Your task to perform on an android device: Go to internet settings Image 0: 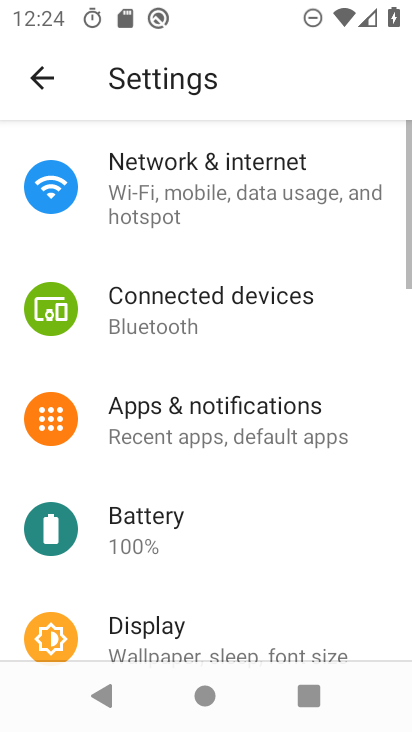
Step 0: click (237, 201)
Your task to perform on an android device: Go to internet settings Image 1: 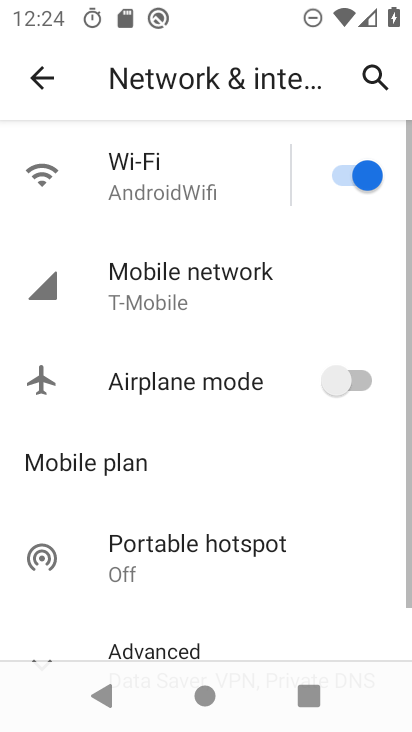
Step 1: click (161, 279)
Your task to perform on an android device: Go to internet settings Image 2: 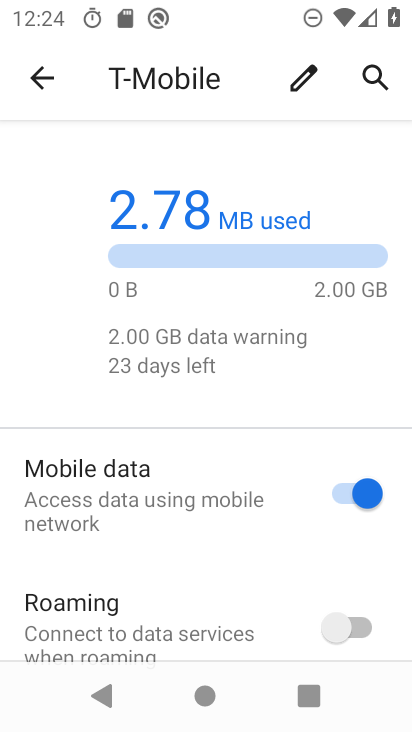
Step 2: click (129, 278)
Your task to perform on an android device: Go to internet settings Image 3: 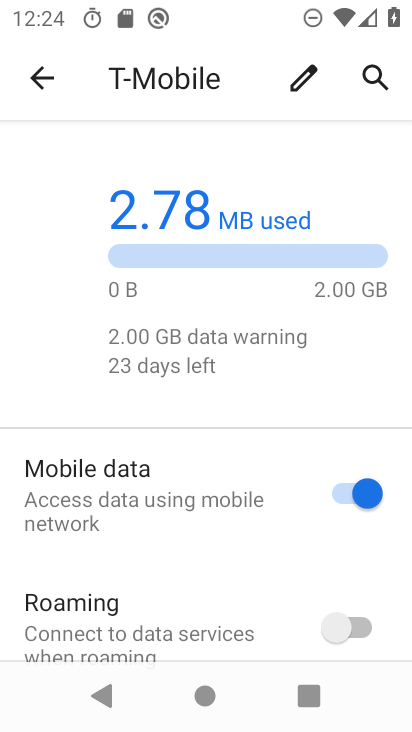
Step 3: drag from (204, 572) to (189, 256)
Your task to perform on an android device: Go to internet settings Image 4: 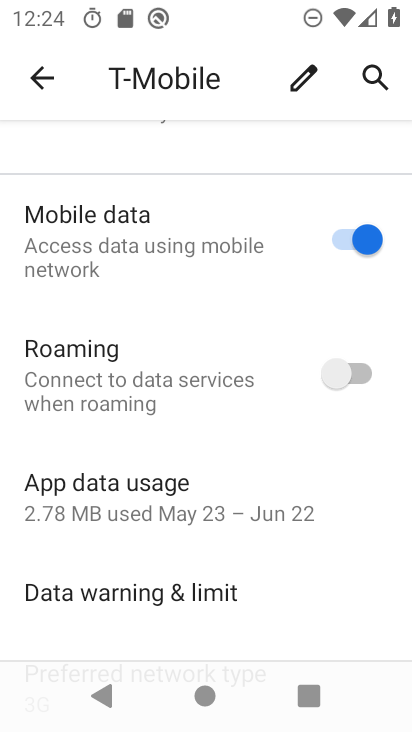
Step 4: click (176, 320)
Your task to perform on an android device: Go to internet settings Image 5: 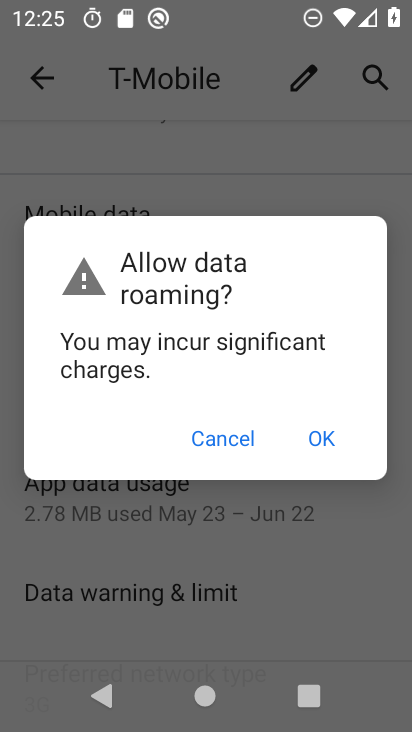
Step 5: click (206, 445)
Your task to perform on an android device: Go to internet settings Image 6: 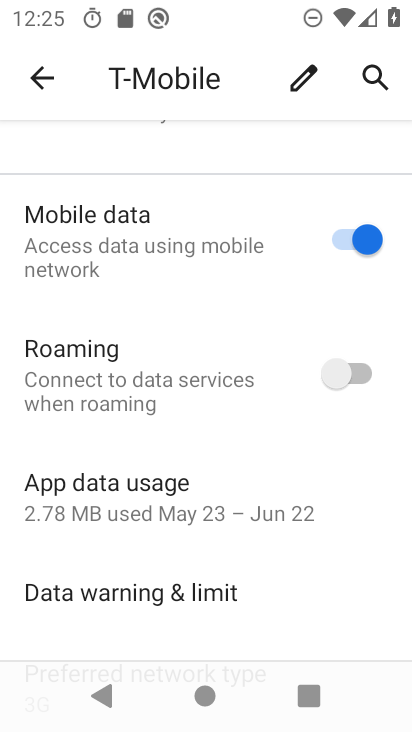
Step 6: drag from (193, 625) to (225, 290)
Your task to perform on an android device: Go to internet settings Image 7: 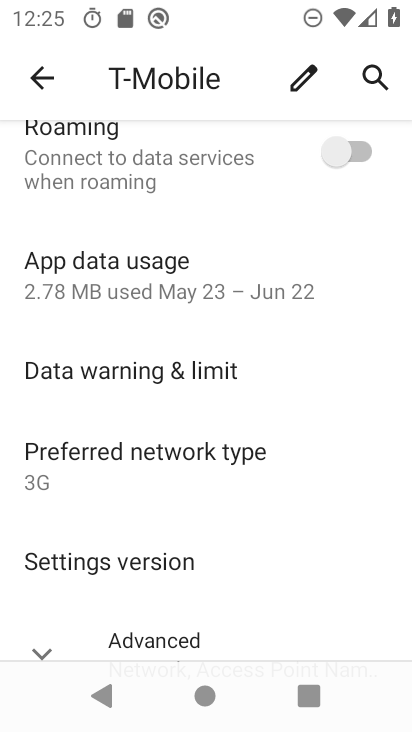
Step 7: drag from (225, 590) to (232, 272)
Your task to perform on an android device: Go to internet settings Image 8: 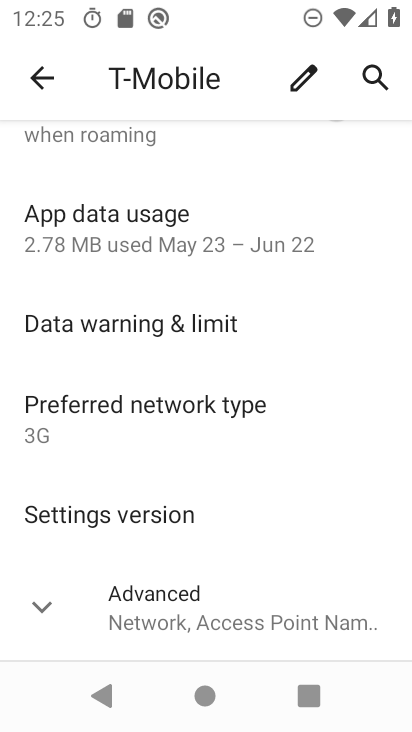
Step 8: click (51, 609)
Your task to perform on an android device: Go to internet settings Image 9: 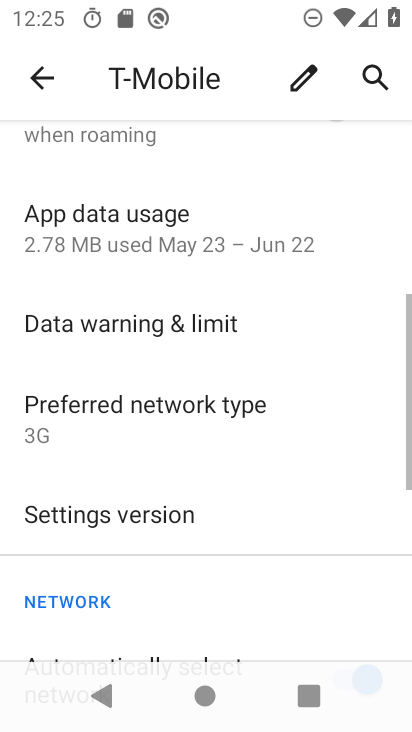
Step 9: task complete